Your task to perform on an android device: install app "Truecaller" Image 0: 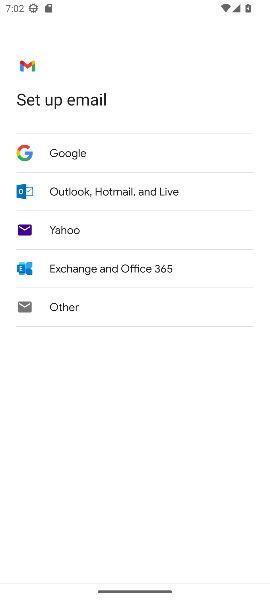
Step 0: press home button
Your task to perform on an android device: install app "Truecaller" Image 1: 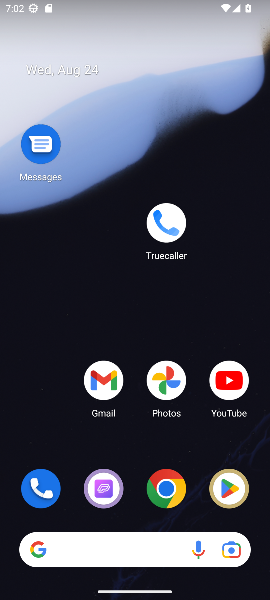
Step 1: drag from (139, 518) to (126, 67)
Your task to perform on an android device: install app "Truecaller" Image 2: 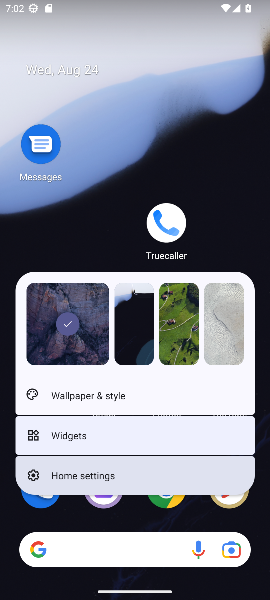
Step 2: click (184, 139)
Your task to perform on an android device: install app "Truecaller" Image 3: 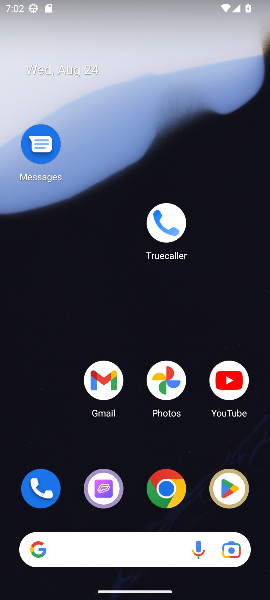
Step 3: click (222, 500)
Your task to perform on an android device: install app "Truecaller" Image 4: 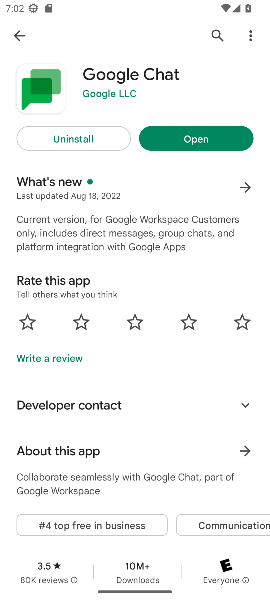
Step 4: click (214, 43)
Your task to perform on an android device: install app "Truecaller" Image 5: 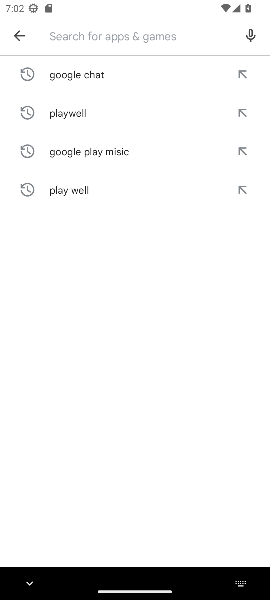
Step 5: type "true caller"
Your task to perform on an android device: install app "Truecaller" Image 6: 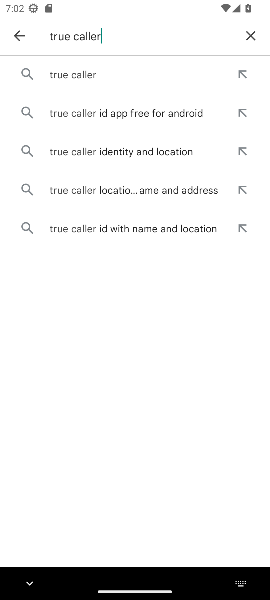
Step 6: click (70, 73)
Your task to perform on an android device: install app "Truecaller" Image 7: 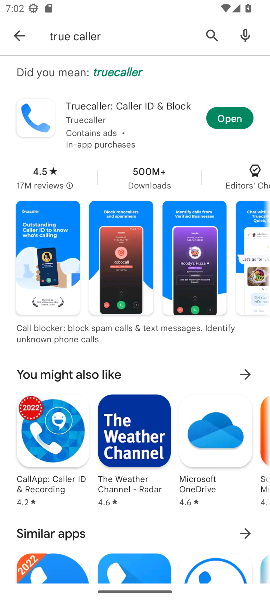
Step 7: click (231, 112)
Your task to perform on an android device: install app "Truecaller" Image 8: 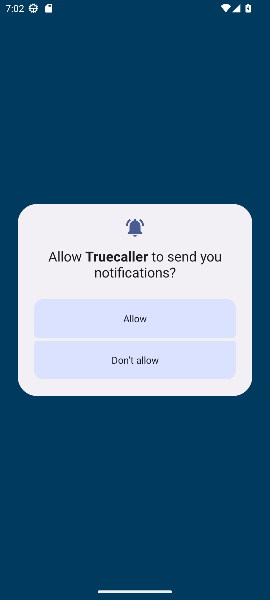
Step 8: task complete